Your task to perform on an android device: Go to display settings Image 0: 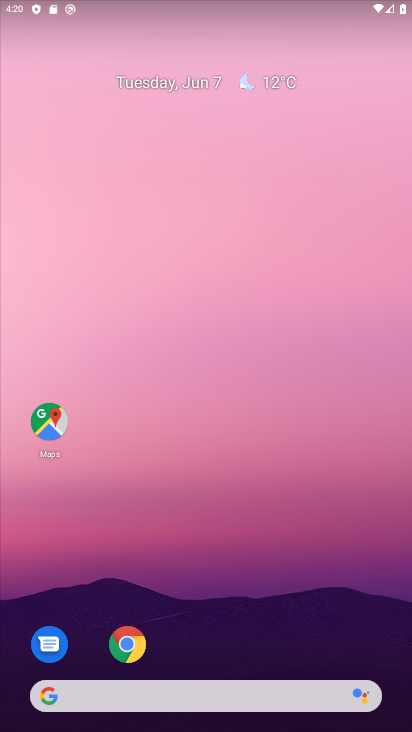
Step 0: press home button
Your task to perform on an android device: Go to display settings Image 1: 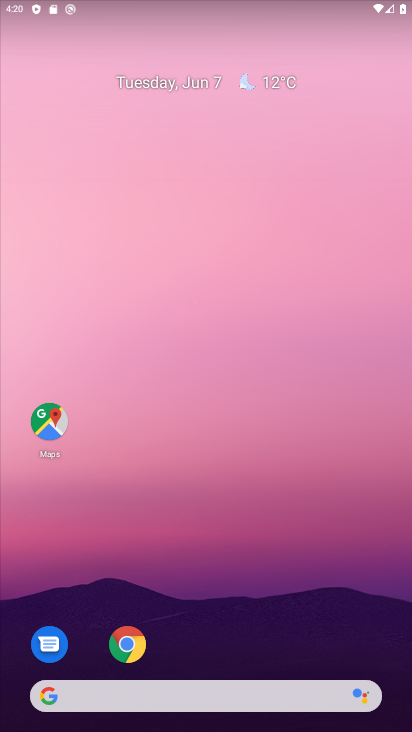
Step 1: drag from (301, 87) to (301, 51)
Your task to perform on an android device: Go to display settings Image 2: 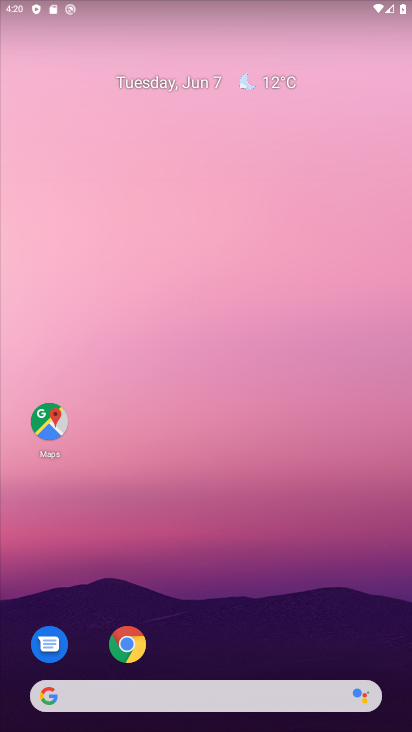
Step 2: drag from (233, 614) to (220, 88)
Your task to perform on an android device: Go to display settings Image 3: 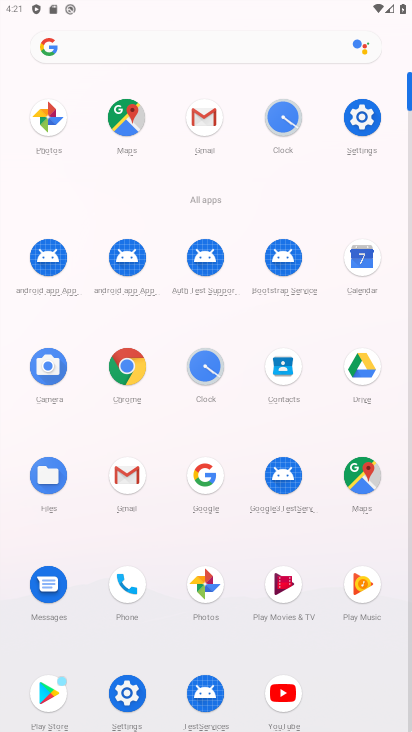
Step 3: click (363, 123)
Your task to perform on an android device: Go to display settings Image 4: 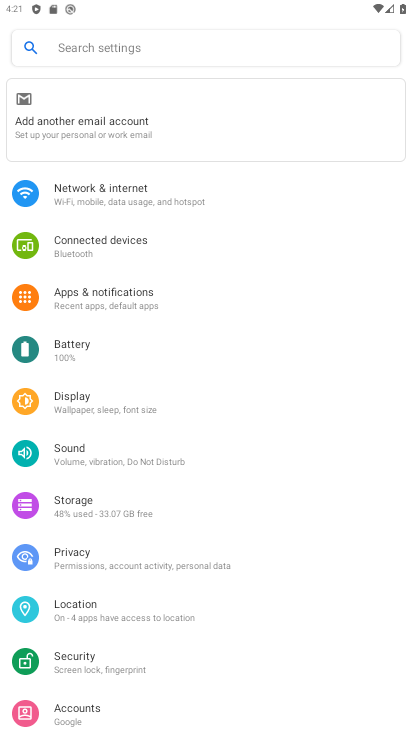
Step 4: click (90, 395)
Your task to perform on an android device: Go to display settings Image 5: 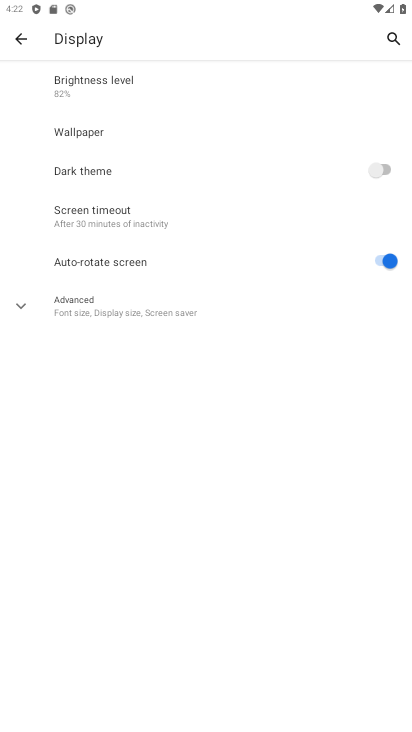
Step 5: task complete